Your task to perform on an android device: What's the weather today? Image 0: 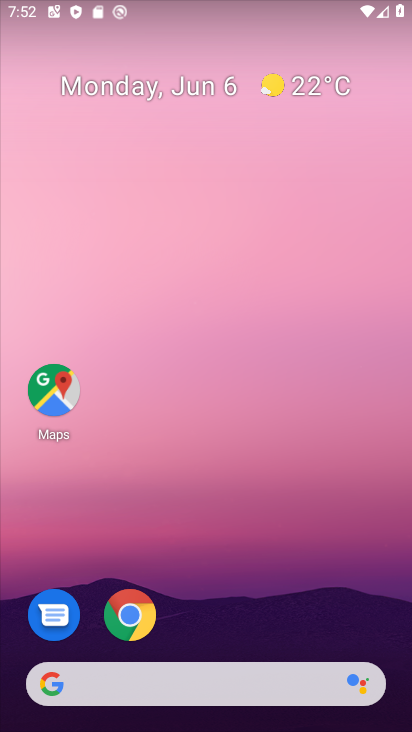
Step 0: drag from (1, 233) to (388, 322)
Your task to perform on an android device: What's the weather today? Image 1: 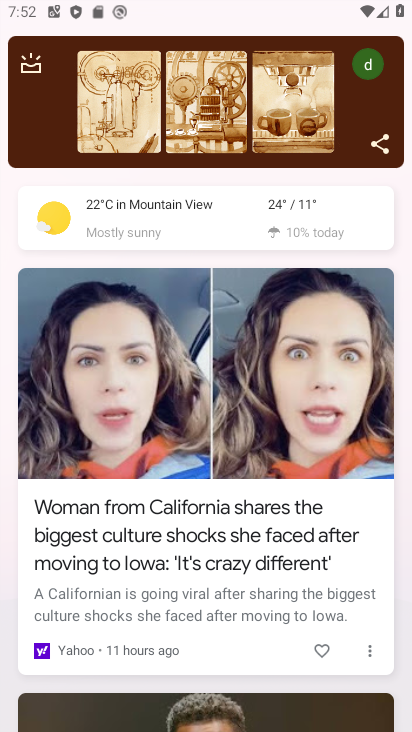
Step 1: click (271, 210)
Your task to perform on an android device: What's the weather today? Image 2: 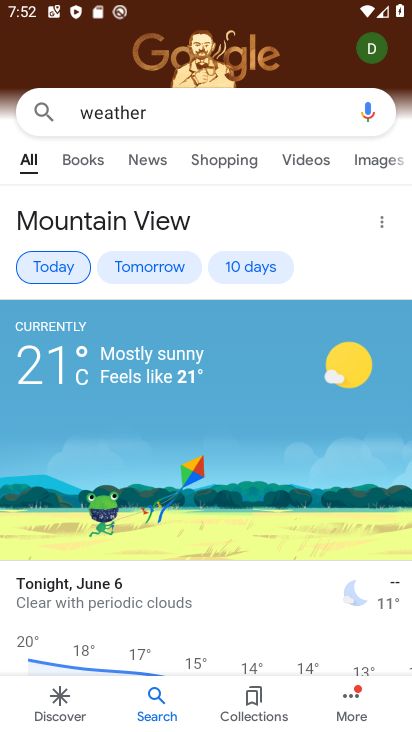
Step 2: click (70, 260)
Your task to perform on an android device: What's the weather today? Image 3: 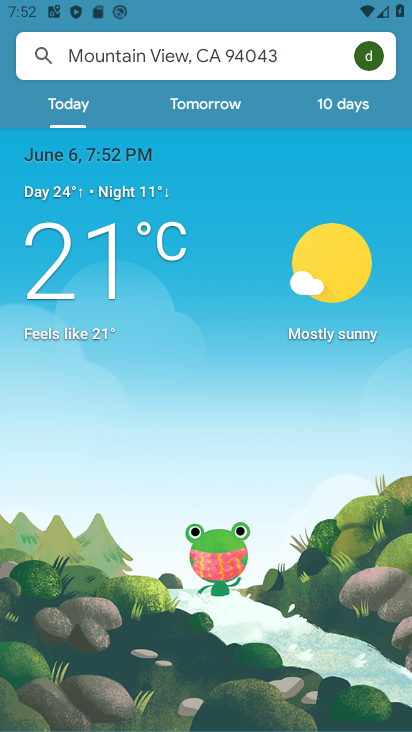
Step 3: task complete